Your task to perform on an android device: Open the calendar and show me this week's events Image 0: 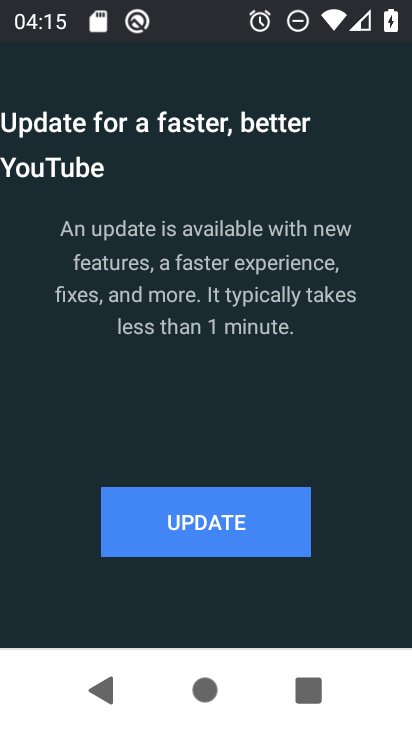
Step 0: press home button
Your task to perform on an android device: Open the calendar and show me this week's events Image 1: 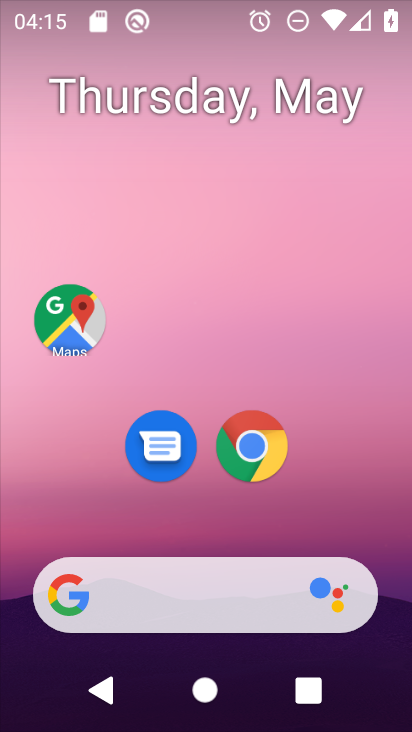
Step 1: drag from (341, 552) to (350, 24)
Your task to perform on an android device: Open the calendar and show me this week's events Image 2: 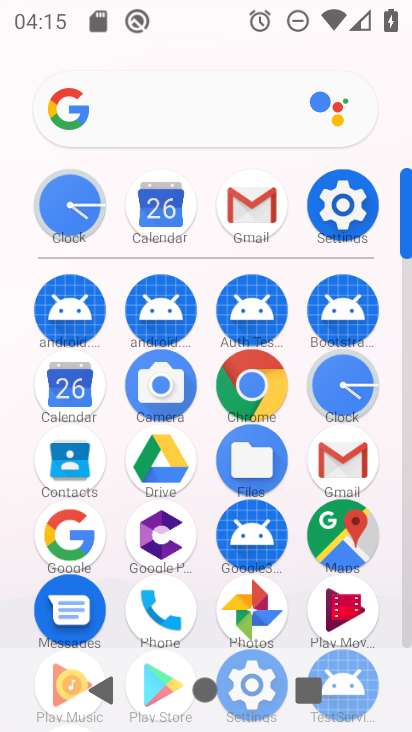
Step 2: click (72, 384)
Your task to perform on an android device: Open the calendar and show me this week's events Image 3: 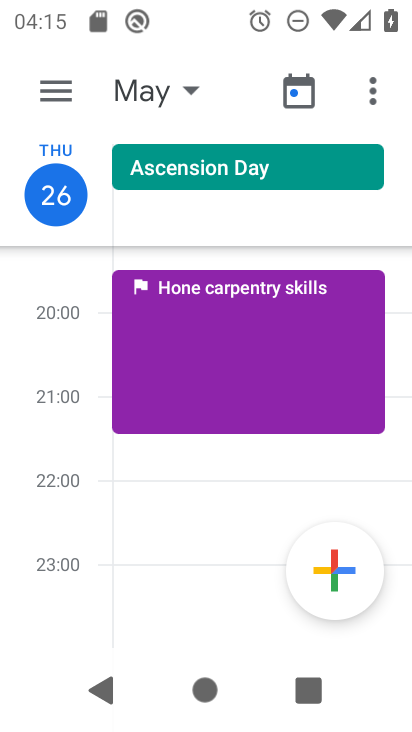
Step 3: click (40, 92)
Your task to perform on an android device: Open the calendar and show me this week's events Image 4: 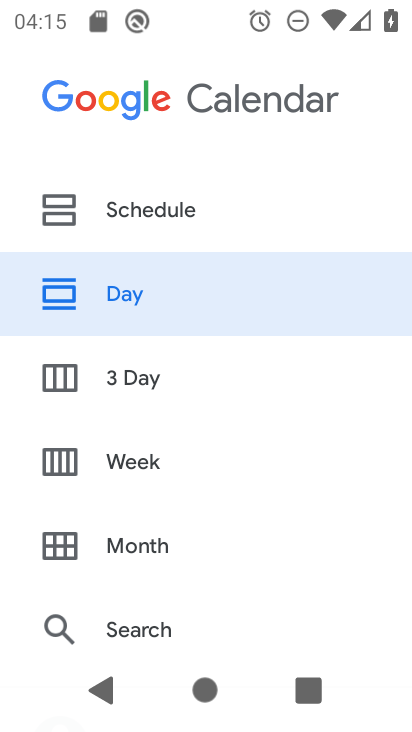
Step 4: click (113, 464)
Your task to perform on an android device: Open the calendar and show me this week's events Image 5: 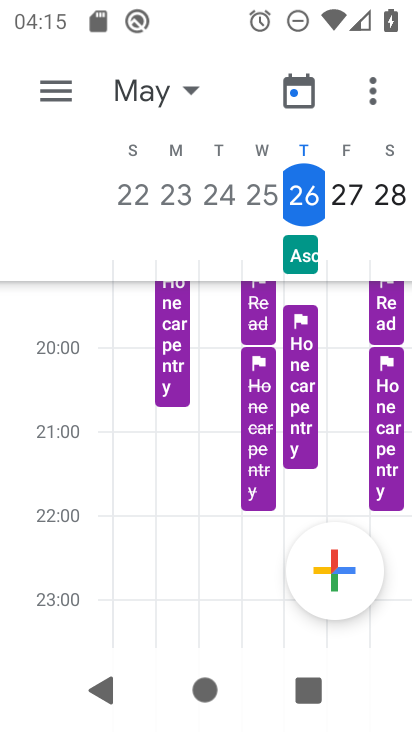
Step 5: click (45, 92)
Your task to perform on an android device: Open the calendar and show me this week's events Image 6: 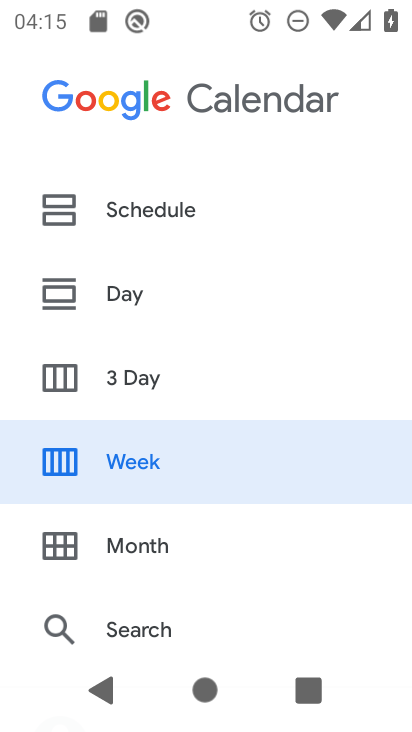
Step 6: drag from (174, 560) to (139, 73)
Your task to perform on an android device: Open the calendar and show me this week's events Image 7: 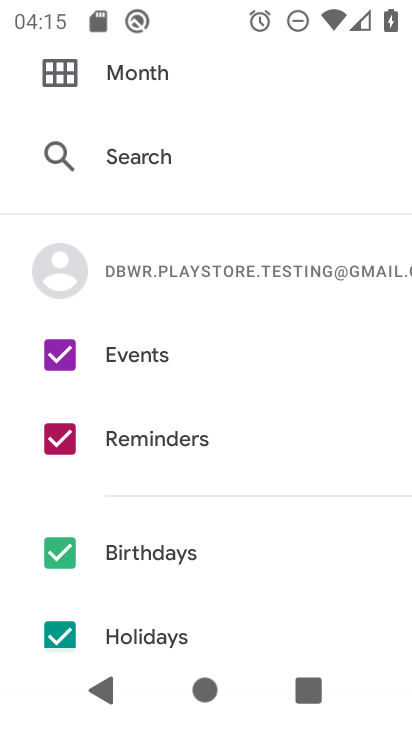
Step 7: click (63, 446)
Your task to perform on an android device: Open the calendar and show me this week's events Image 8: 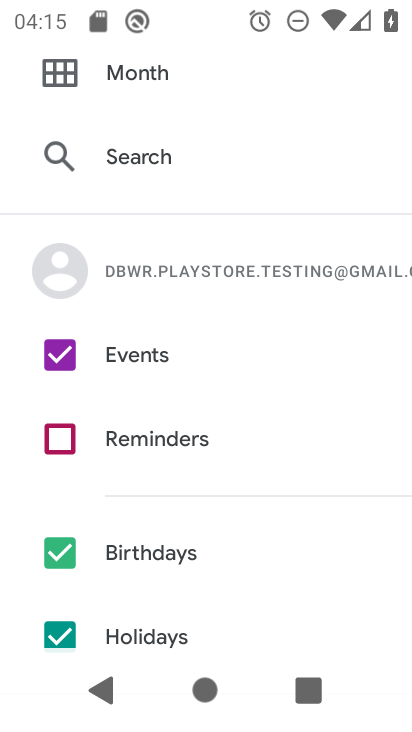
Step 8: click (60, 556)
Your task to perform on an android device: Open the calendar and show me this week's events Image 9: 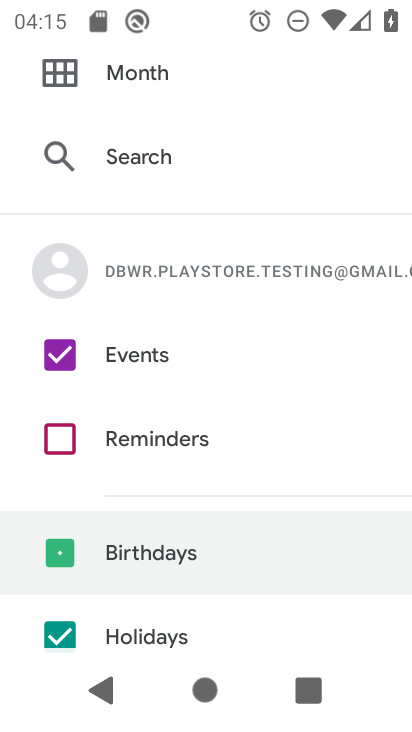
Step 9: click (60, 634)
Your task to perform on an android device: Open the calendar and show me this week's events Image 10: 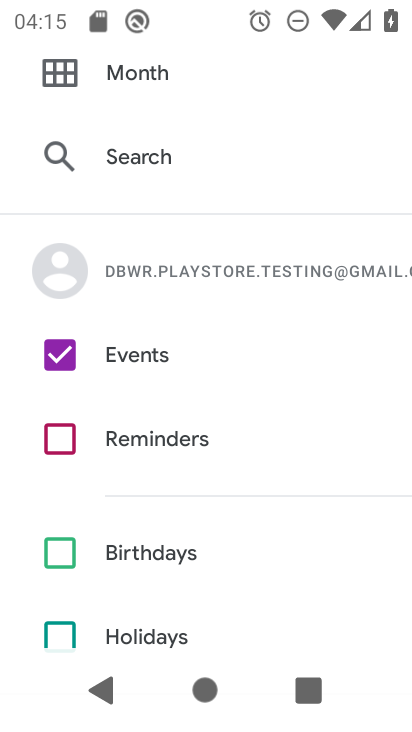
Step 10: drag from (143, 599) to (135, 364)
Your task to perform on an android device: Open the calendar and show me this week's events Image 11: 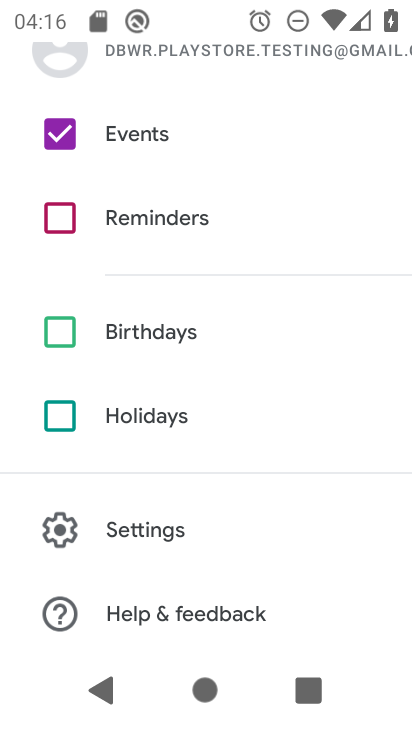
Step 11: drag from (179, 268) to (168, 726)
Your task to perform on an android device: Open the calendar and show me this week's events Image 12: 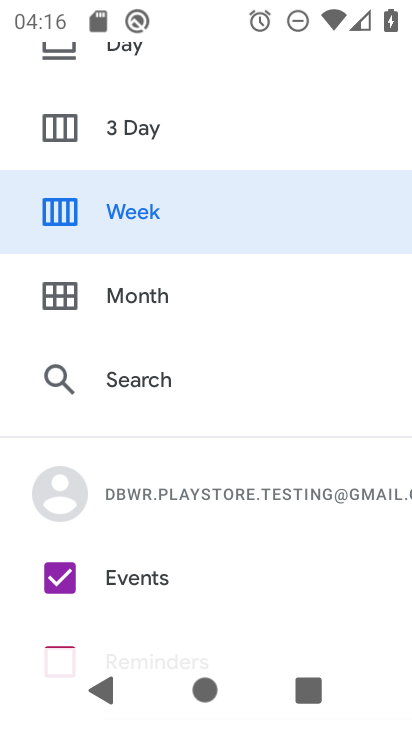
Step 12: click (101, 225)
Your task to perform on an android device: Open the calendar and show me this week's events Image 13: 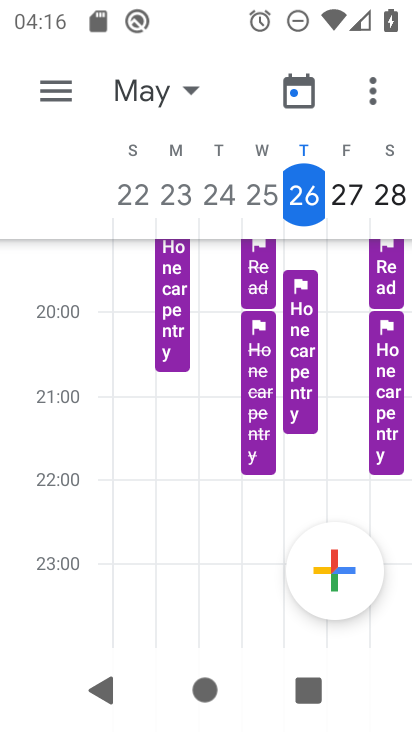
Step 13: task complete